Your task to perform on an android device: Open sound settings Image 0: 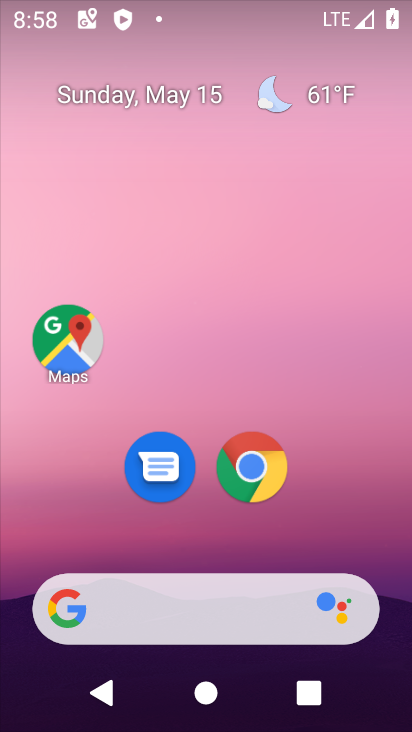
Step 0: drag from (230, 429) to (285, 100)
Your task to perform on an android device: Open sound settings Image 1: 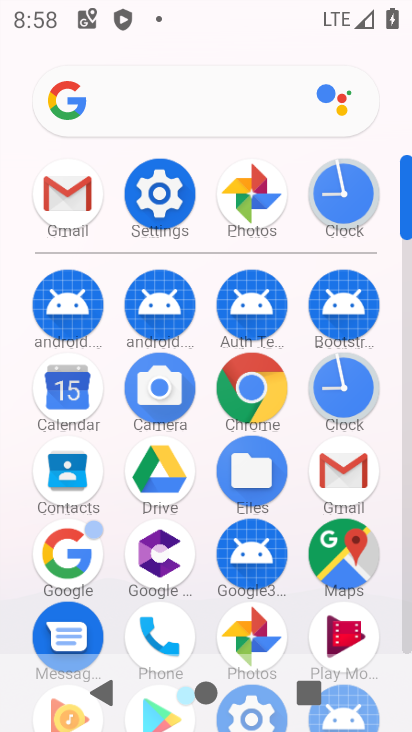
Step 1: click (176, 186)
Your task to perform on an android device: Open sound settings Image 2: 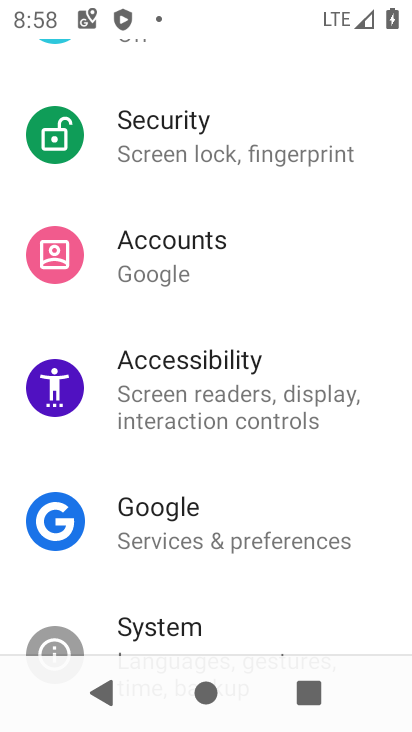
Step 2: drag from (191, 98) to (176, 697)
Your task to perform on an android device: Open sound settings Image 3: 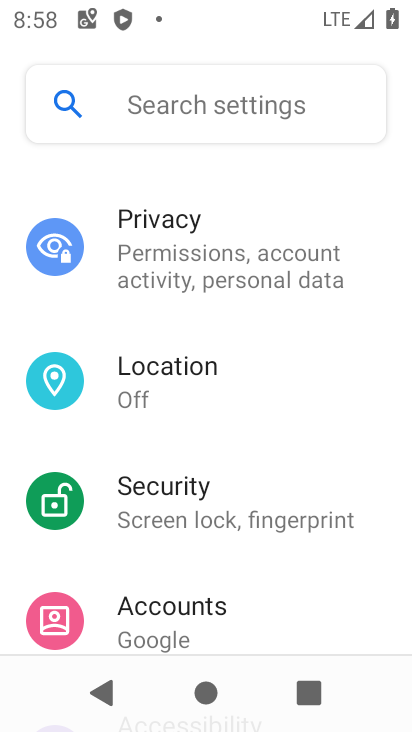
Step 3: drag from (137, 262) to (141, 627)
Your task to perform on an android device: Open sound settings Image 4: 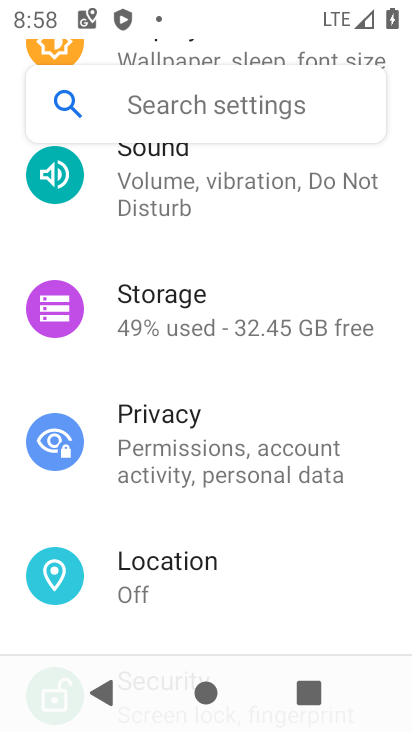
Step 4: click (207, 207)
Your task to perform on an android device: Open sound settings Image 5: 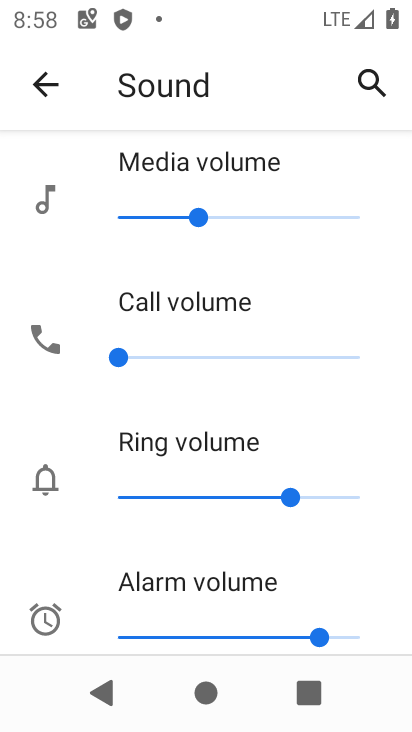
Step 5: task complete